Your task to perform on an android device: Open privacy settings Image 0: 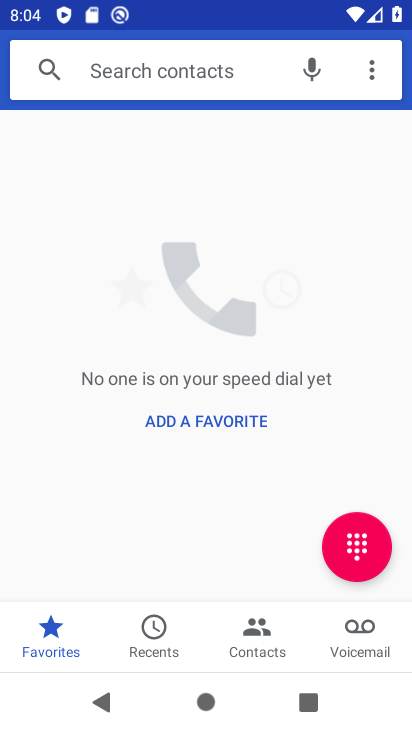
Step 0: press back button
Your task to perform on an android device: Open privacy settings Image 1: 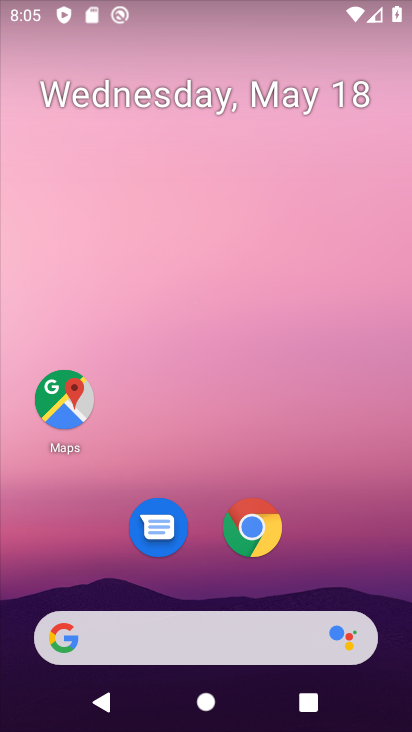
Step 1: drag from (254, 610) to (139, 149)
Your task to perform on an android device: Open privacy settings Image 2: 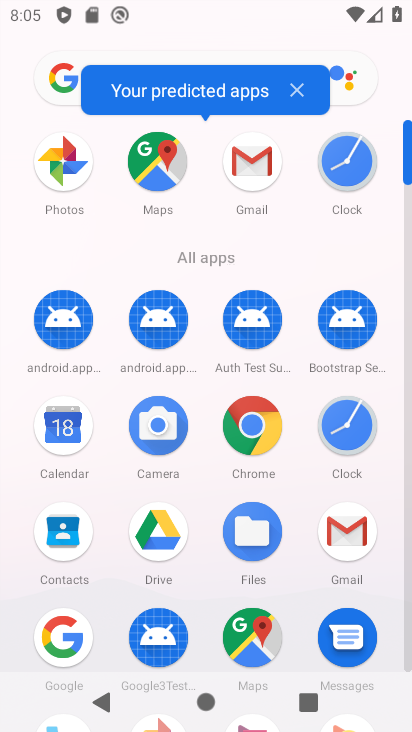
Step 2: drag from (236, 683) to (136, 98)
Your task to perform on an android device: Open privacy settings Image 3: 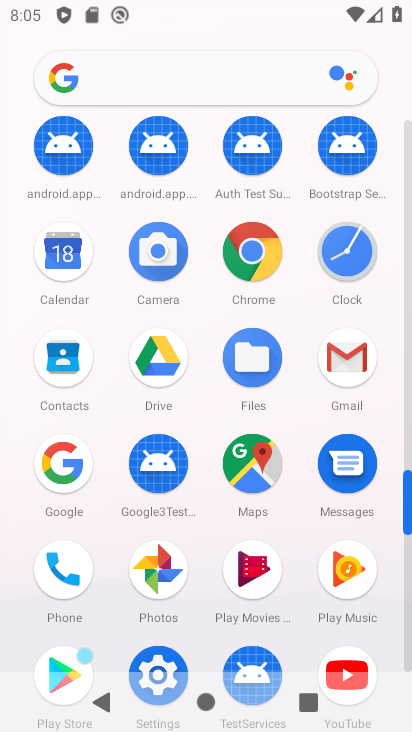
Step 3: drag from (351, 563) to (132, 58)
Your task to perform on an android device: Open privacy settings Image 4: 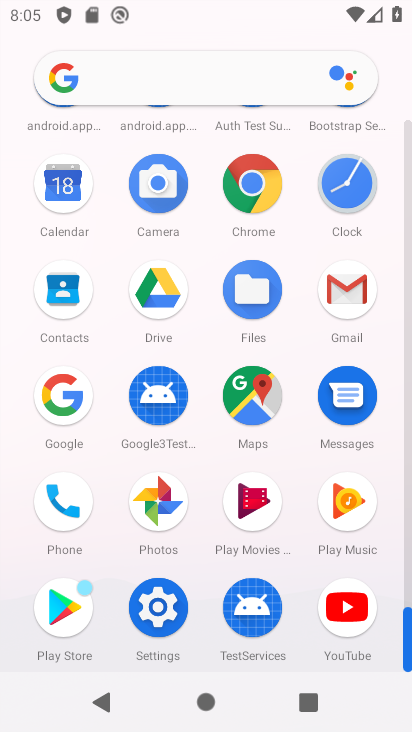
Step 4: drag from (278, 540) to (114, 89)
Your task to perform on an android device: Open privacy settings Image 5: 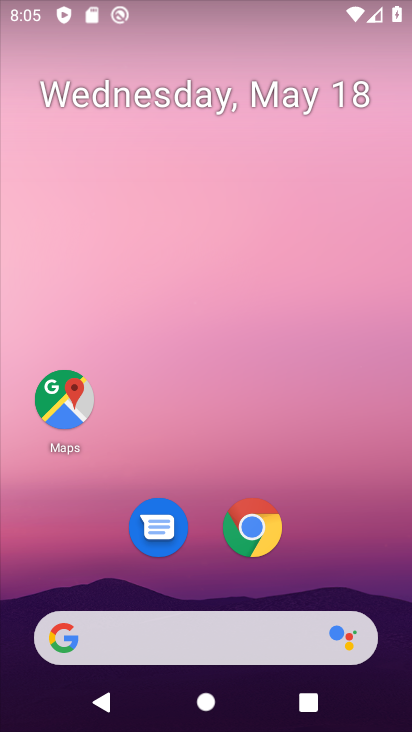
Step 5: drag from (304, 487) to (156, 57)
Your task to perform on an android device: Open privacy settings Image 6: 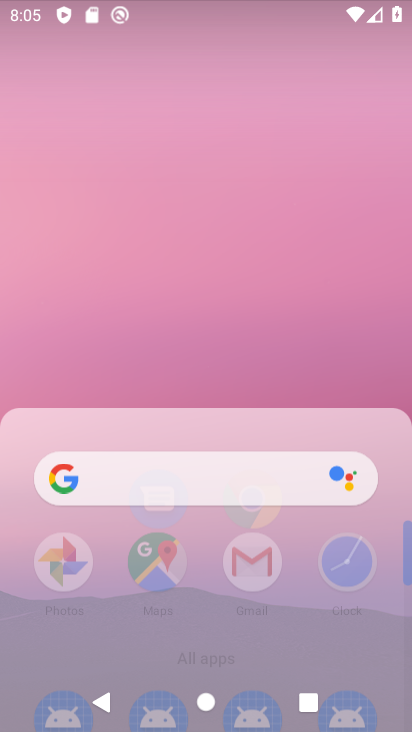
Step 6: drag from (137, 248) to (103, 81)
Your task to perform on an android device: Open privacy settings Image 7: 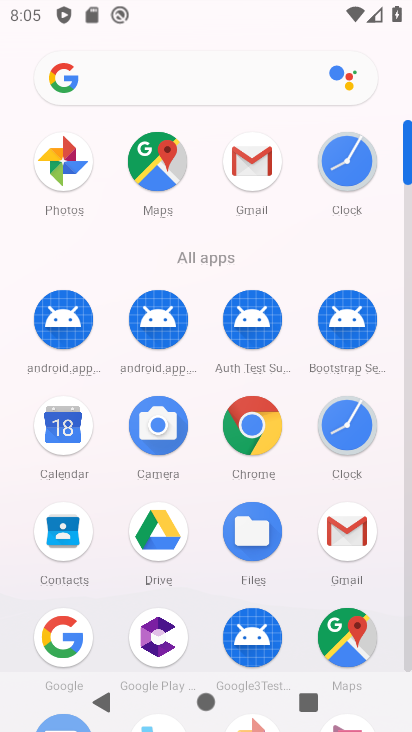
Step 7: click (159, 652)
Your task to perform on an android device: Open privacy settings Image 8: 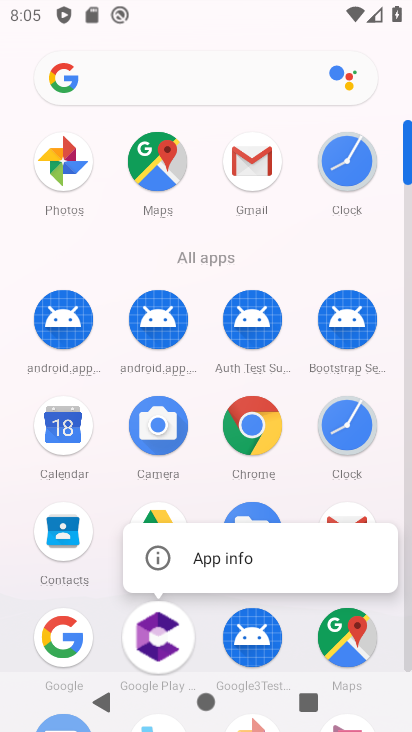
Step 8: click (156, 623)
Your task to perform on an android device: Open privacy settings Image 9: 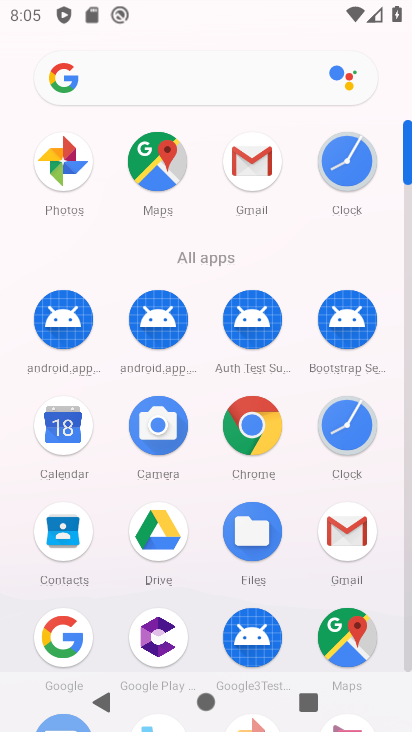
Step 9: click (159, 608)
Your task to perform on an android device: Open privacy settings Image 10: 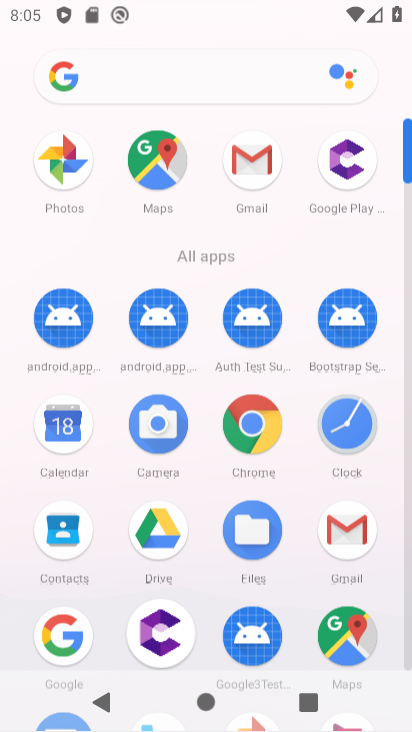
Step 10: click (161, 604)
Your task to perform on an android device: Open privacy settings Image 11: 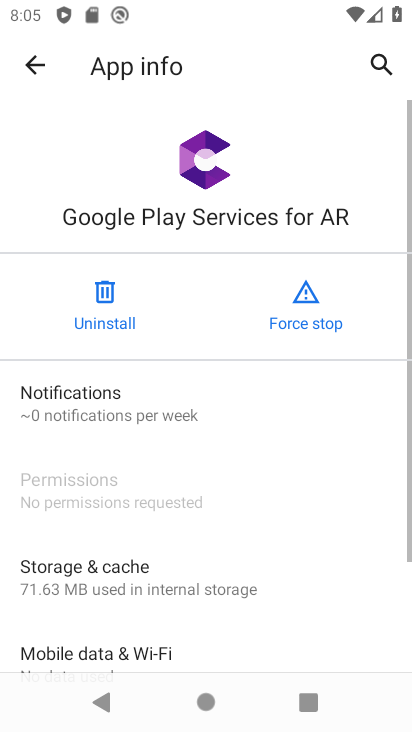
Step 11: drag from (317, 604) to (251, 21)
Your task to perform on an android device: Open privacy settings Image 12: 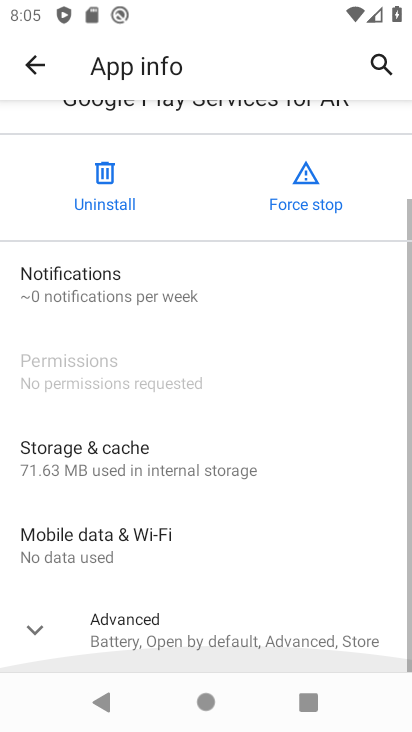
Step 12: drag from (309, 519) to (228, 25)
Your task to perform on an android device: Open privacy settings Image 13: 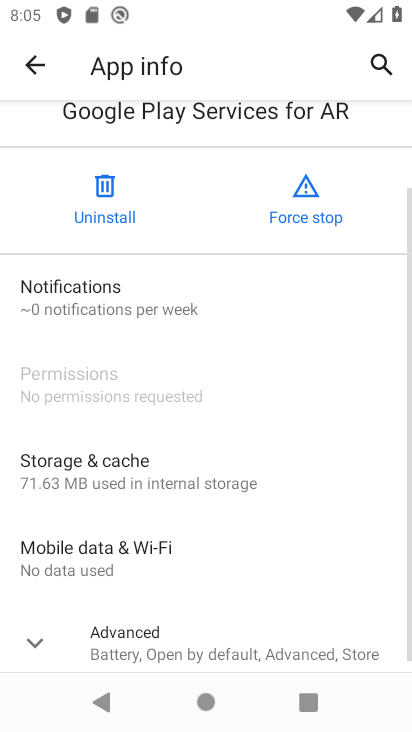
Step 13: drag from (203, 452) to (186, 300)
Your task to perform on an android device: Open privacy settings Image 14: 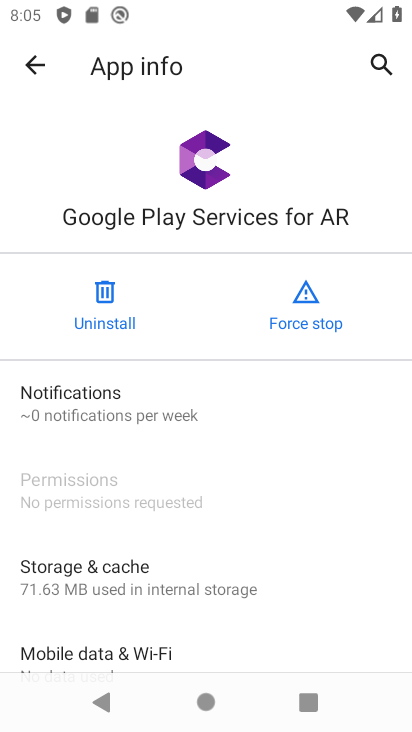
Step 14: drag from (213, 572) to (235, 255)
Your task to perform on an android device: Open privacy settings Image 15: 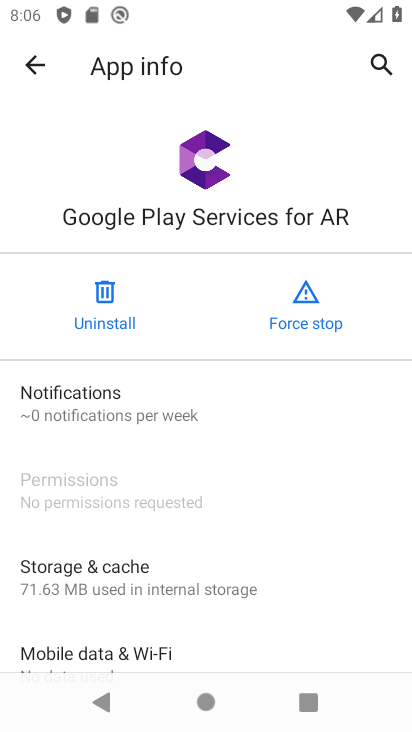
Step 15: drag from (133, 538) to (28, 61)
Your task to perform on an android device: Open privacy settings Image 16: 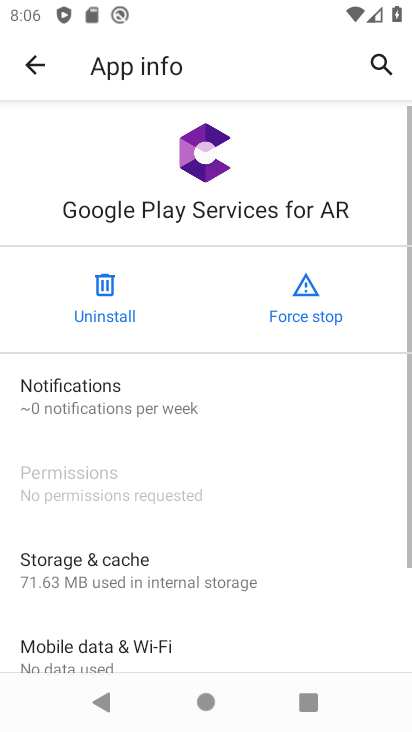
Step 16: click (28, 58)
Your task to perform on an android device: Open privacy settings Image 17: 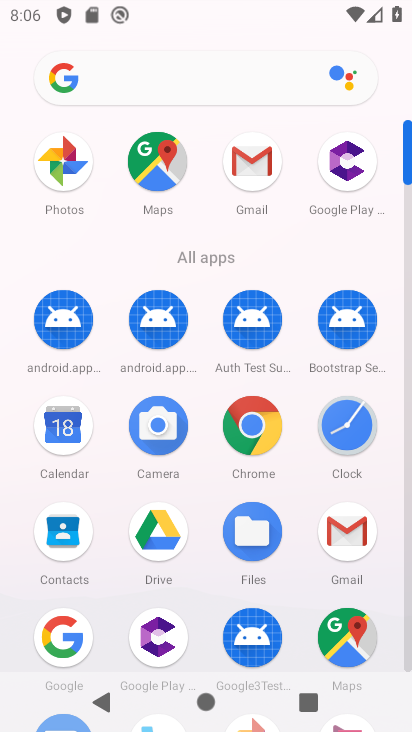
Step 17: drag from (221, 488) to (151, 72)
Your task to perform on an android device: Open privacy settings Image 18: 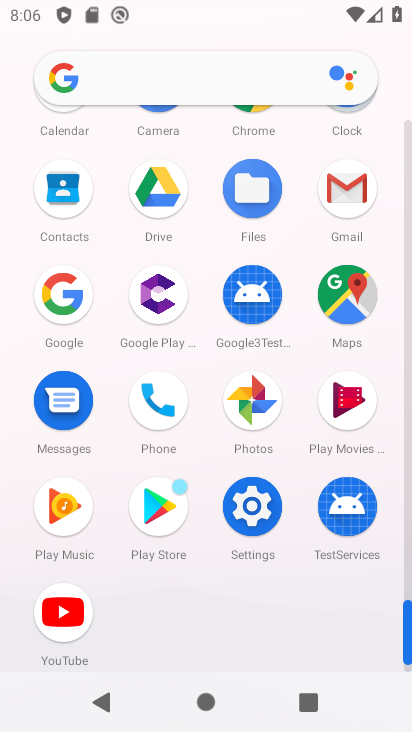
Step 18: drag from (182, 437) to (136, 96)
Your task to perform on an android device: Open privacy settings Image 19: 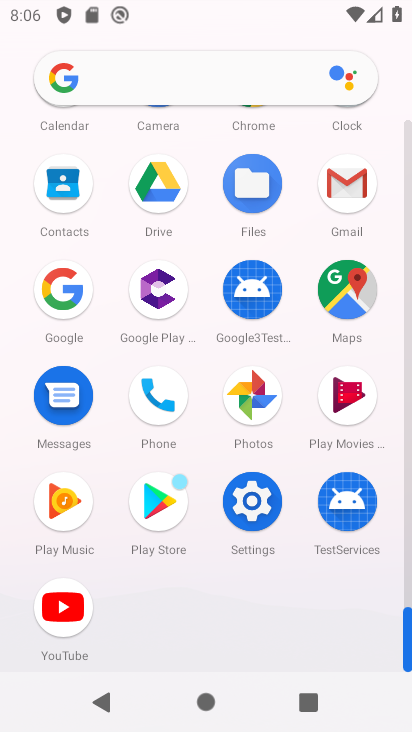
Step 19: click (249, 507)
Your task to perform on an android device: Open privacy settings Image 20: 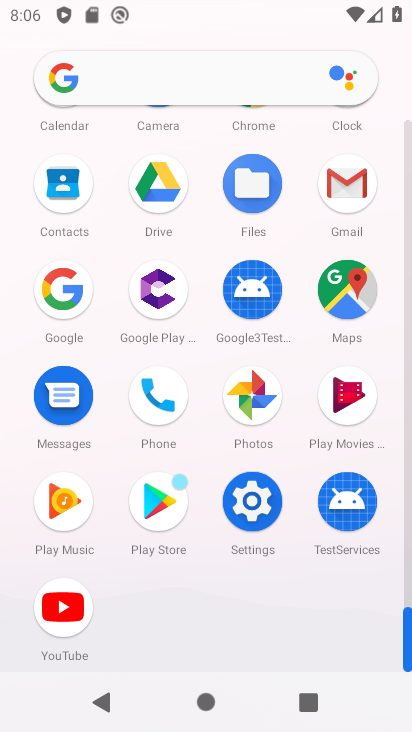
Step 20: click (249, 507)
Your task to perform on an android device: Open privacy settings Image 21: 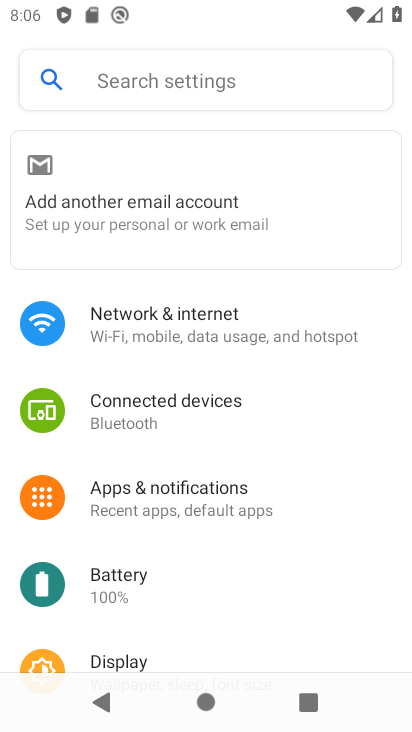
Step 21: click (249, 507)
Your task to perform on an android device: Open privacy settings Image 22: 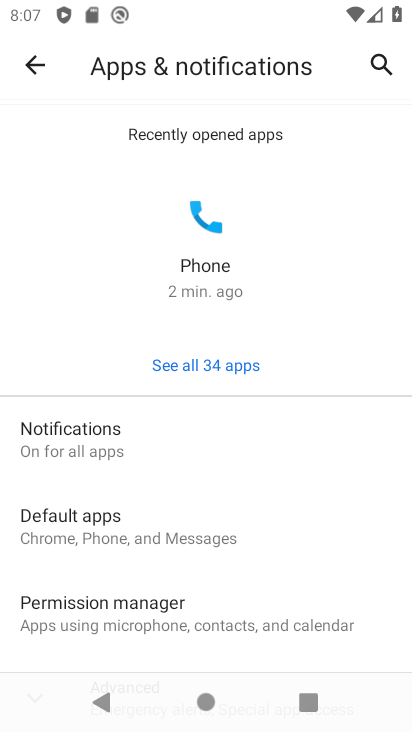
Step 22: click (35, 63)
Your task to perform on an android device: Open privacy settings Image 23: 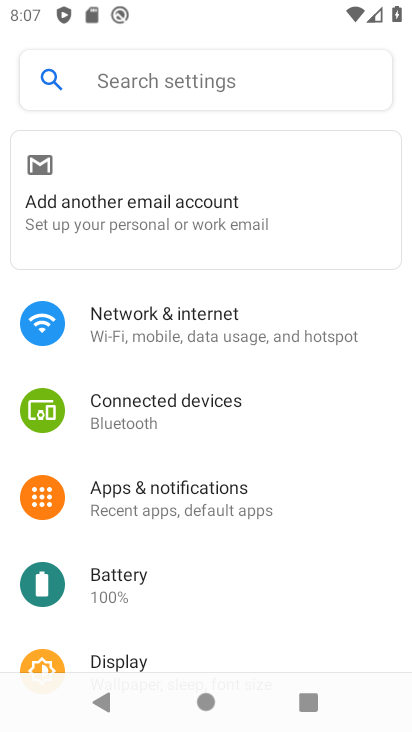
Step 23: drag from (182, 525) to (156, 250)
Your task to perform on an android device: Open privacy settings Image 24: 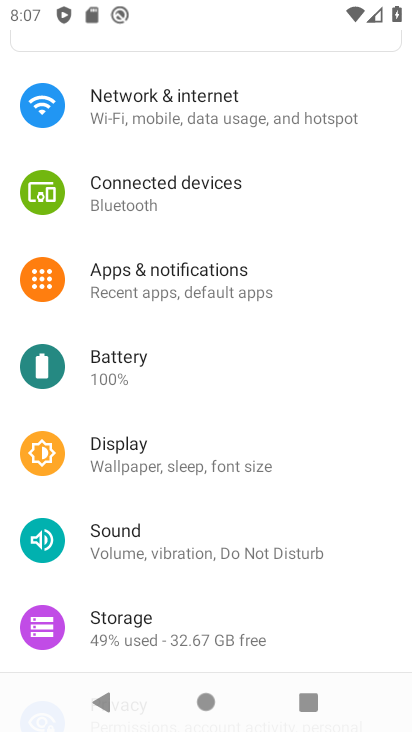
Step 24: drag from (119, 615) to (105, 358)
Your task to perform on an android device: Open privacy settings Image 25: 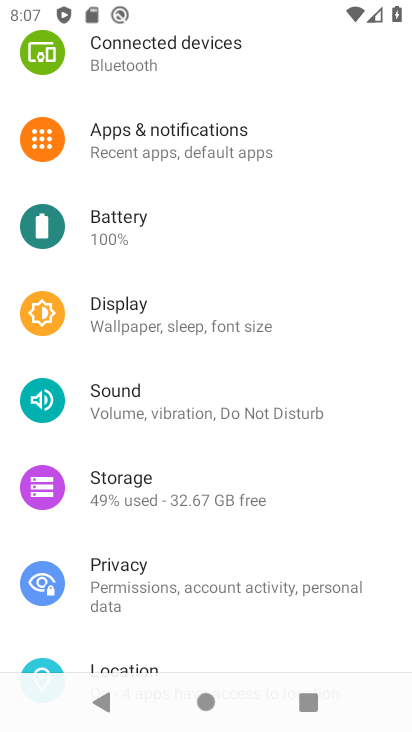
Step 25: click (130, 572)
Your task to perform on an android device: Open privacy settings Image 26: 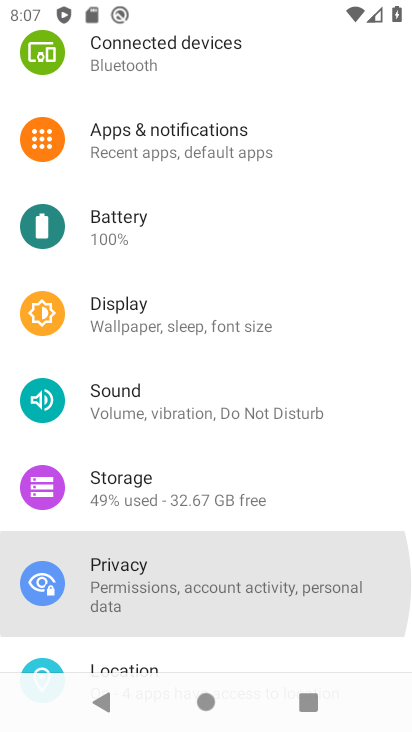
Step 26: click (130, 572)
Your task to perform on an android device: Open privacy settings Image 27: 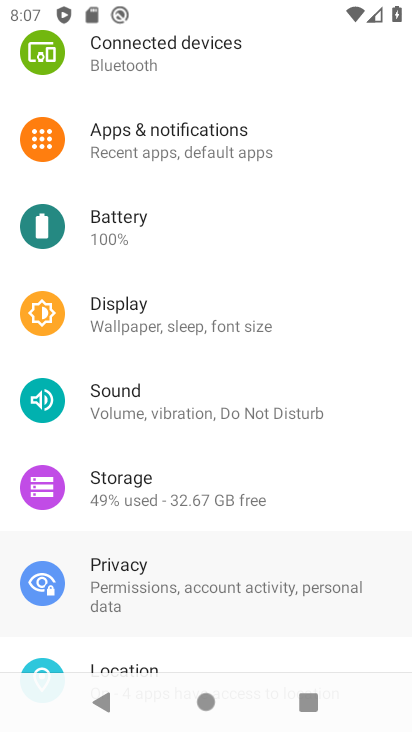
Step 27: click (130, 572)
Your task to perform on an android device: Open privacy settings Image 28: 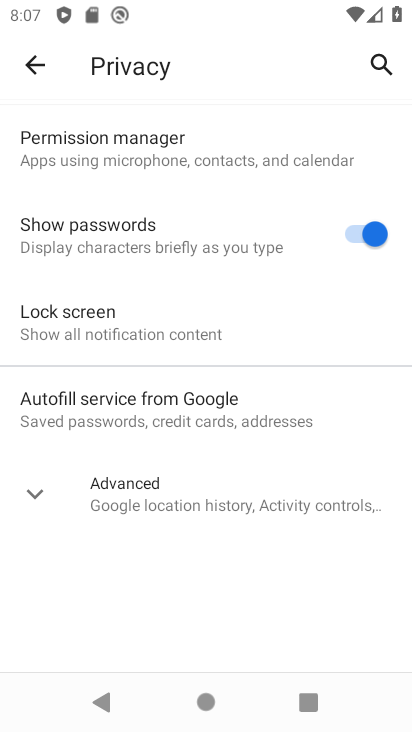
Step 28: task complete